Your task to perform on an android device: Search for Italian restaurants on Maps Image 0: 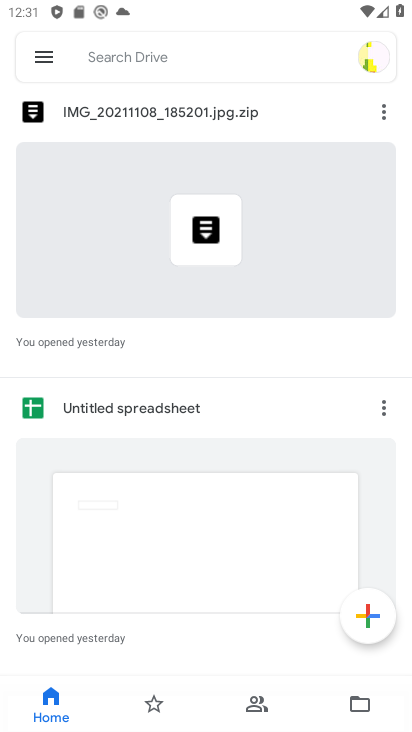
Step 0: press home button
Your task to perform on an android device: Search for Italian restaurants on Maps Image 1: 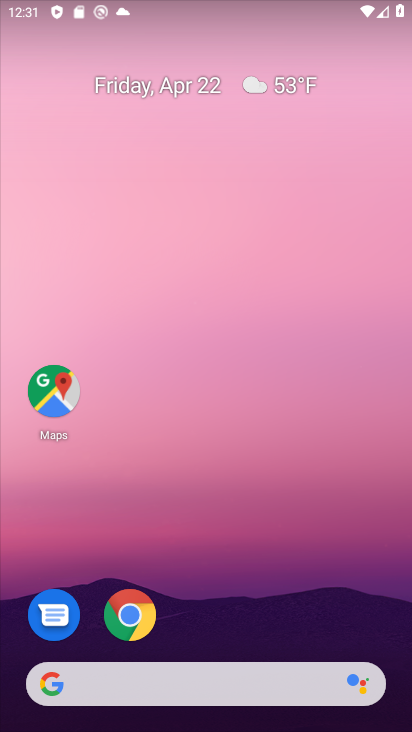
Step 1: click (52, 397)
Your task to perform on an android device: Search for Italian restaurants on Maps Image 2: 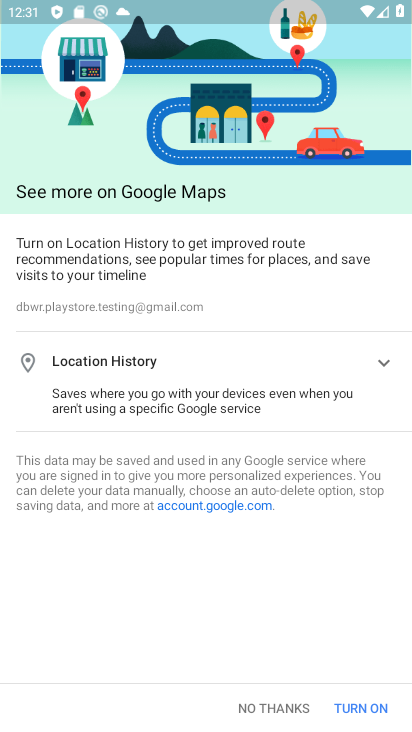
Step 2: click (294, 710)
Your task to perform on an android device: Search for Italian restaurants on Maps Image 3: 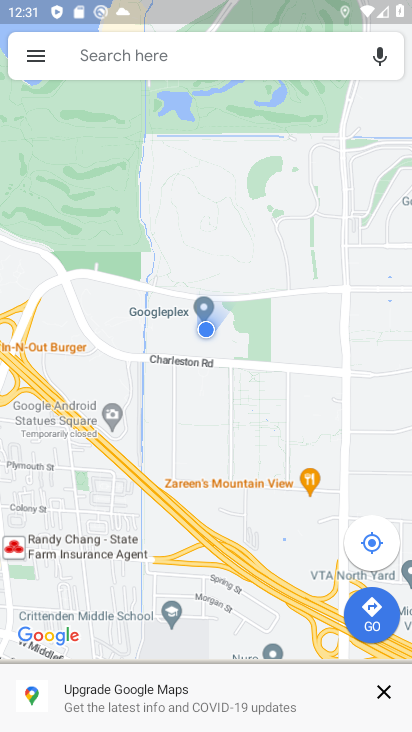
Step 3: click (206, 73)
Your task to perform on an android device: Search for Italian restaurants on Maps Image 4: 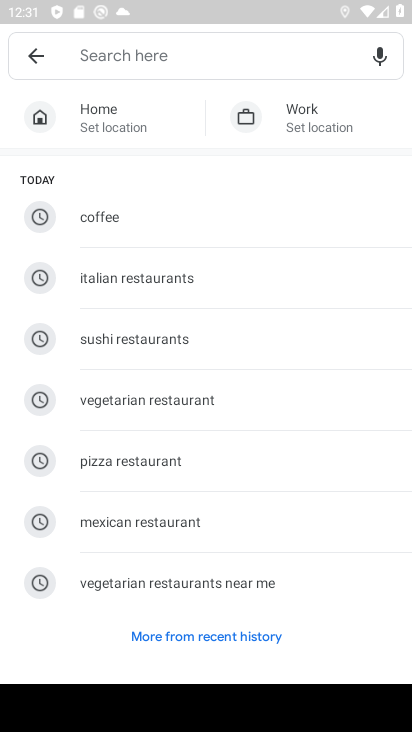
Step 4: click (152, 285)
Your task to perform on an android device: Search for Italian restaurants on Maps Image 5: 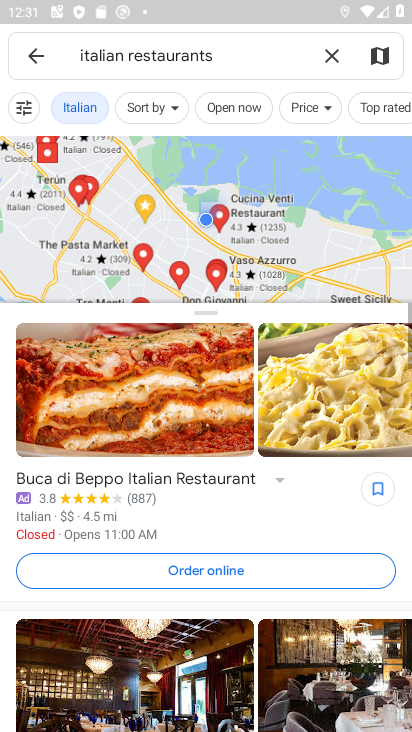
Step 5: task complete